Your task to perform on an android device: turn pop-ups off in chrome Image 0: 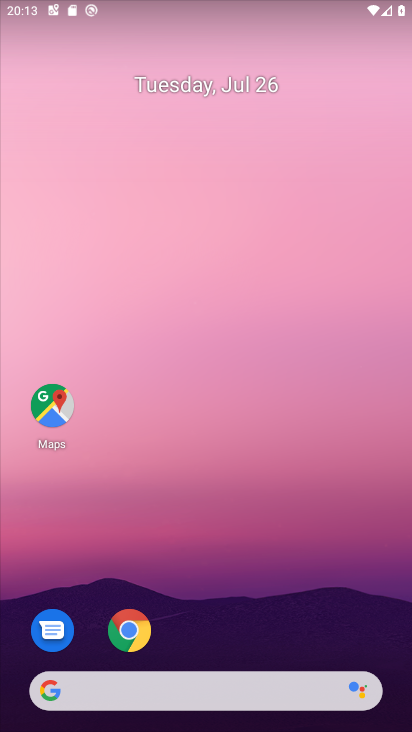
Step 0: click (123, 634)
Your task to perform on an android device: turn pop-ups off in chrome Image 1: 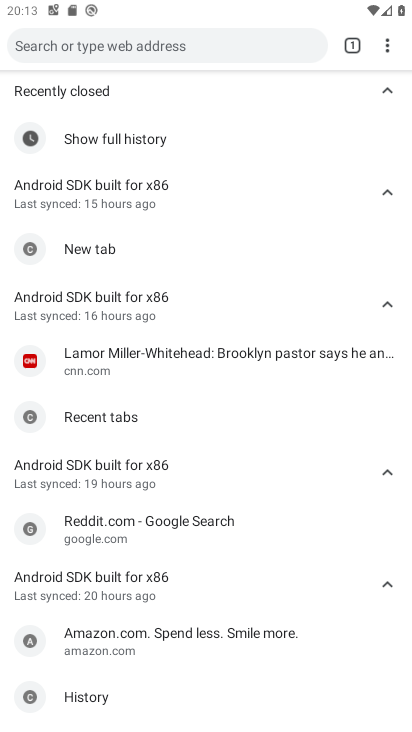
Step 1: click (390, 47)
Your task to perform on an android device: turn pop-ups off in chrome Image 2: 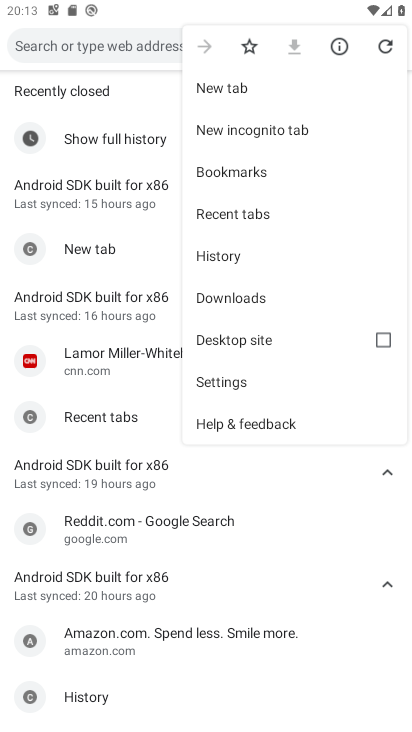
Step 2: click (216, 378)
Your task to perform on an android device: turn pop-ups off in chrome Image 3: 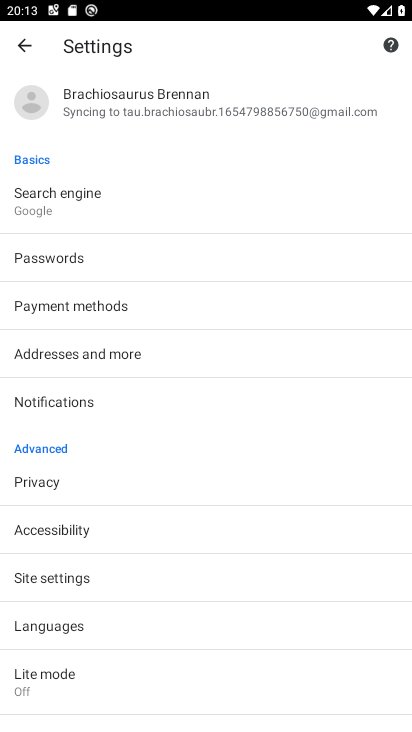
Step 3: click (56, 579)
Your task to perform on an android device: turn pop-ups off in chrome Image 4: 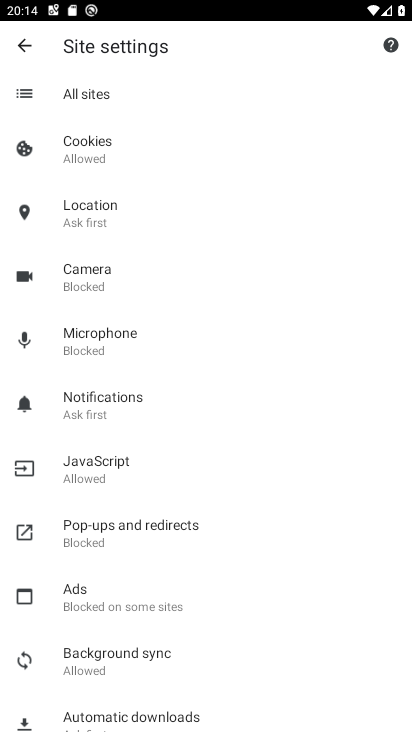
Step 4: click (102, 523)
Your task to perform on an android device: turn pop-ups off in chrome Image 5: 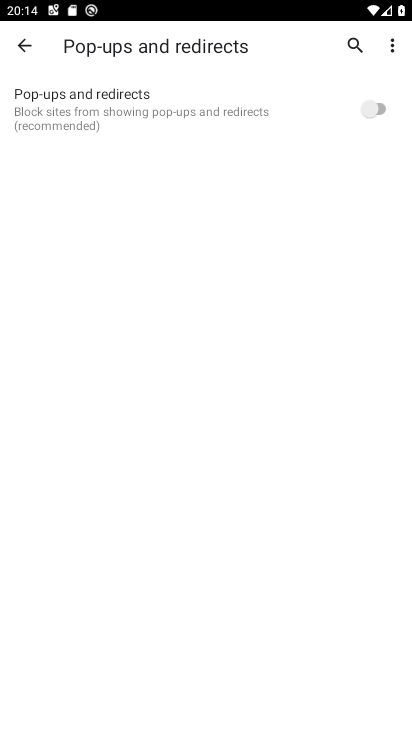
Step 5: task complete